Your task to perform on an android device: delete a single message in the gmail app Image 0: 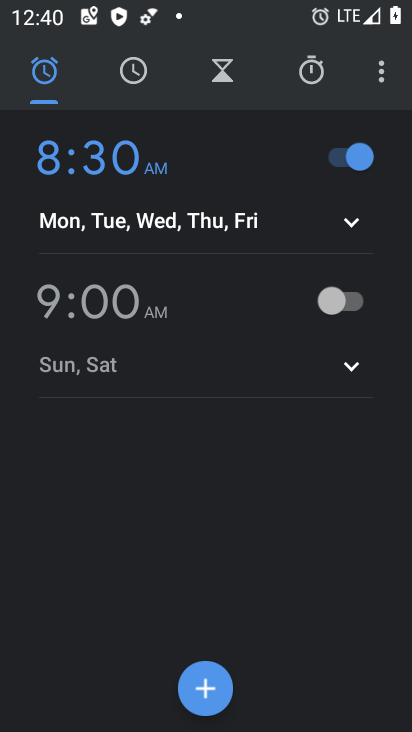
Step 0: press home button
Your task to perform on an android device: delete a single message in the gmail app Image 1: 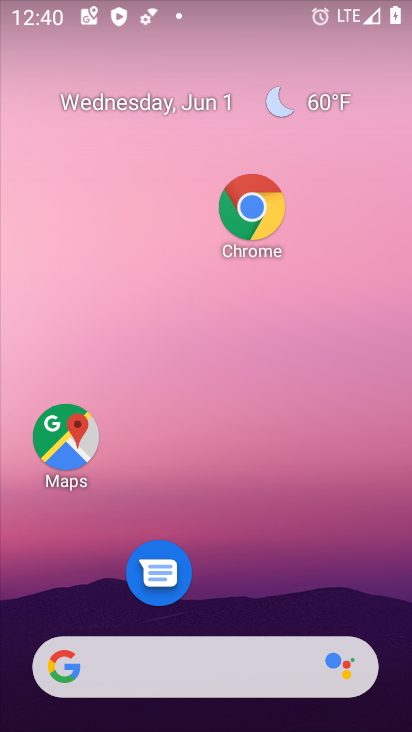
Step 1: drag from (219, 602) to (266, 77)
Your task to perform on an android device: delete a single message in the gmail app Image 2: 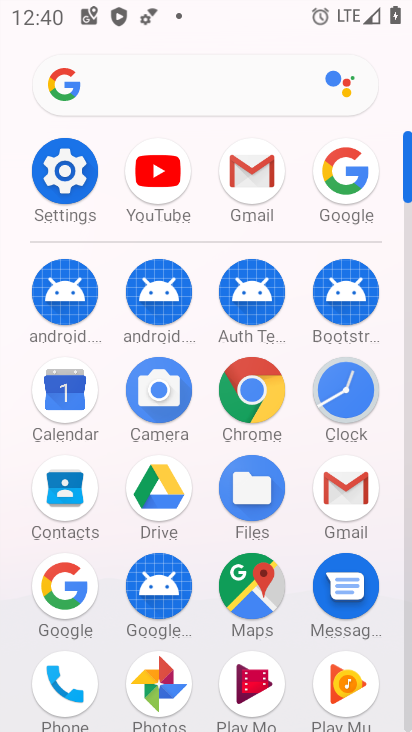
Step 2: click (261, 172)
Your task to perform on an android device: delete a single message in the gmail app Image 3: 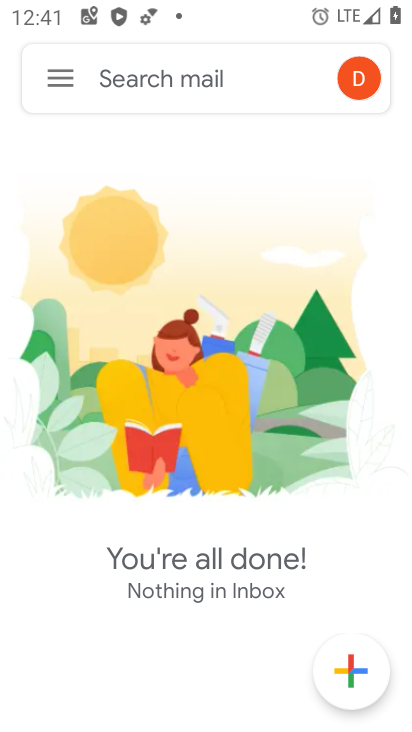
Step 3: click (57, 80)
Your task to perform on an android device: delete a single message in the gmail app Image 4: 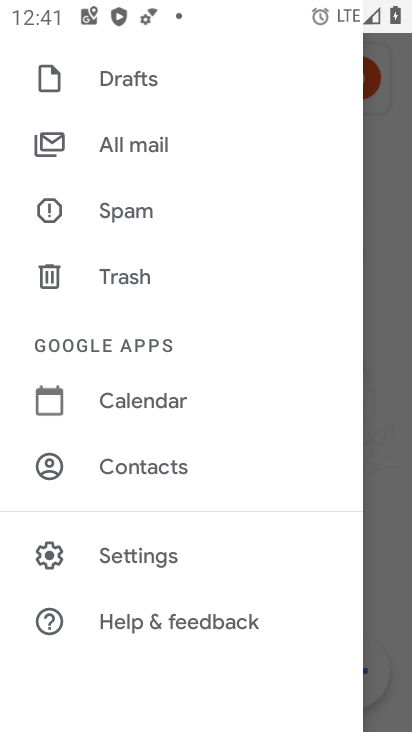
Step 4: click (136, 147)
Your task to perform on an android device: delete a single message in the gmail app Image 5: 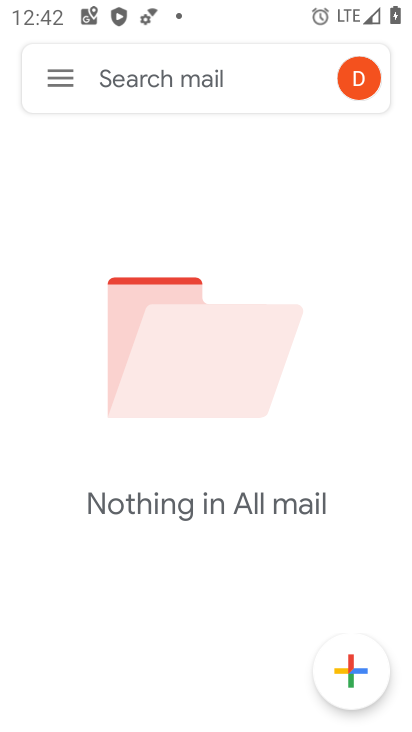
Step 5: task complete